Your task to perform on an android device: Do I have any events today? Image 0: 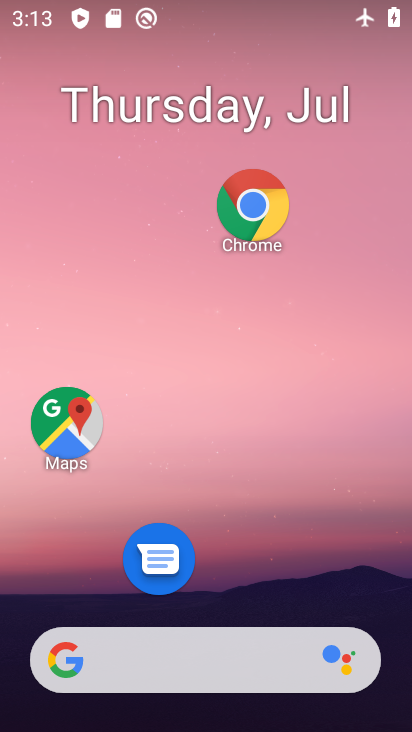
Step 0: drag from (228, 648) to (314, 94)
Your task to perform on an android device: Do I have any events today? Image 1: 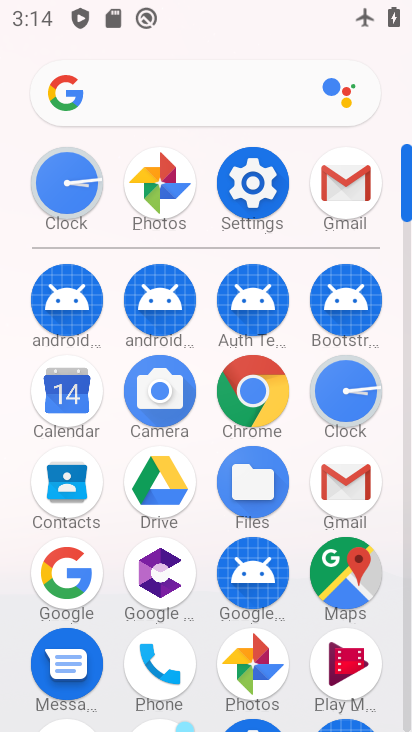
Step 1: click (67, 414)
Your task to perform on an android device: Do I have any events today? Image 2: 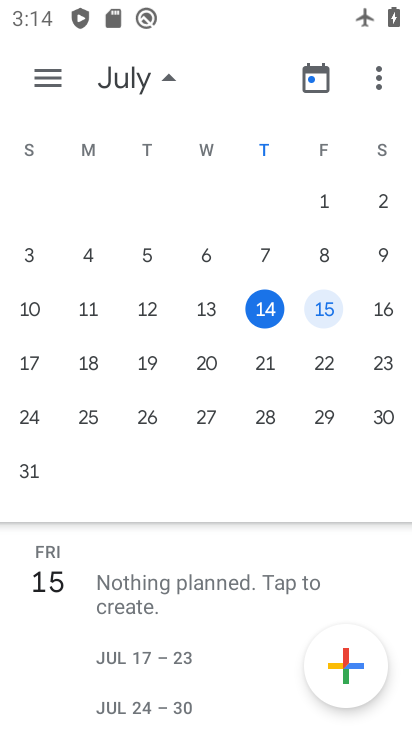
Step 2: click (273, 323)
Your task to perform on an android device: Do I have any events today? Image 3: 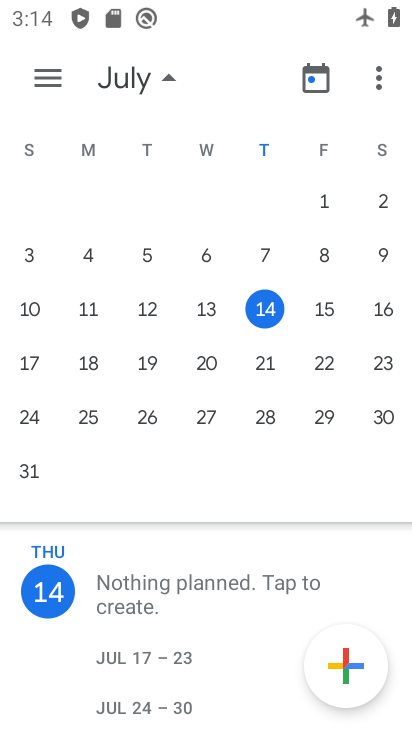
Step 3: task complete